Your task to perform on an android device: What's the weather today? Image 0: 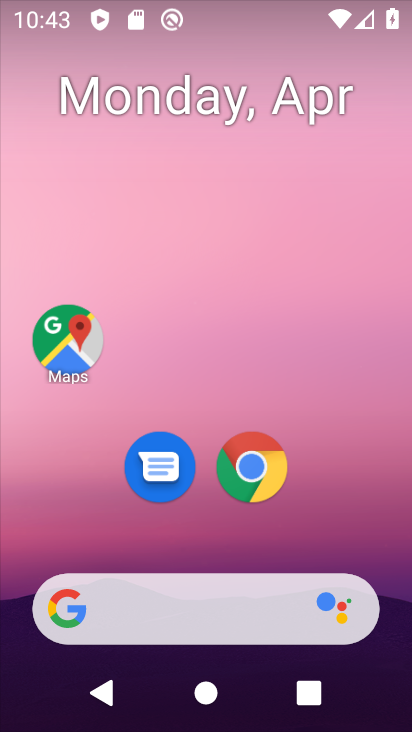
Step 0: click (198, 615)
Your task to perform on an android device: What's the weather today? Image 1: 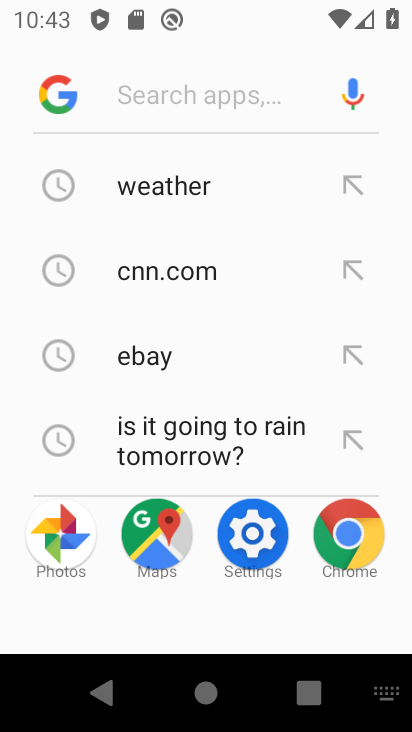
Step 1: type "what's the weather today?"
Your task to perform on an android device: What's the weather today? Image 2: 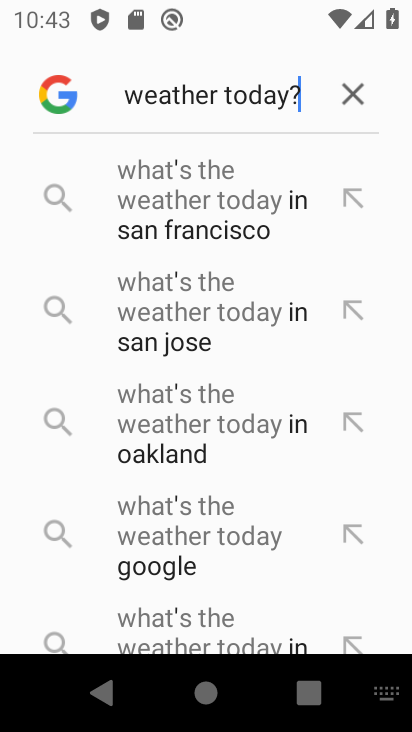
Step 2: click (186, 543)
Your task to perform on an android device: What's the weather today? Image 3: 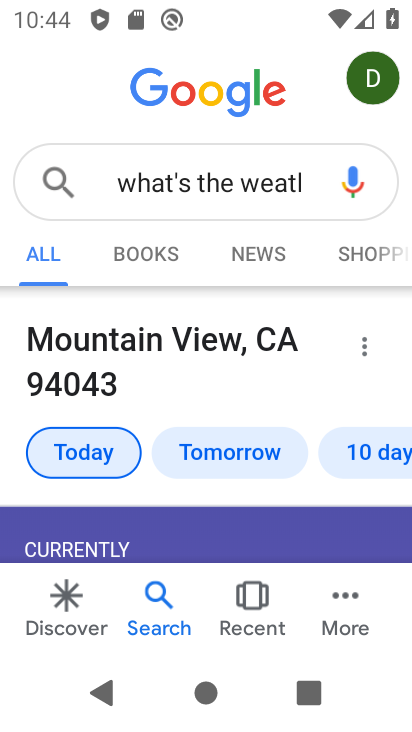
Step 3: task complete